Your task to perform on an android device: Search for vegetarian restaurants on Maps Image 0: 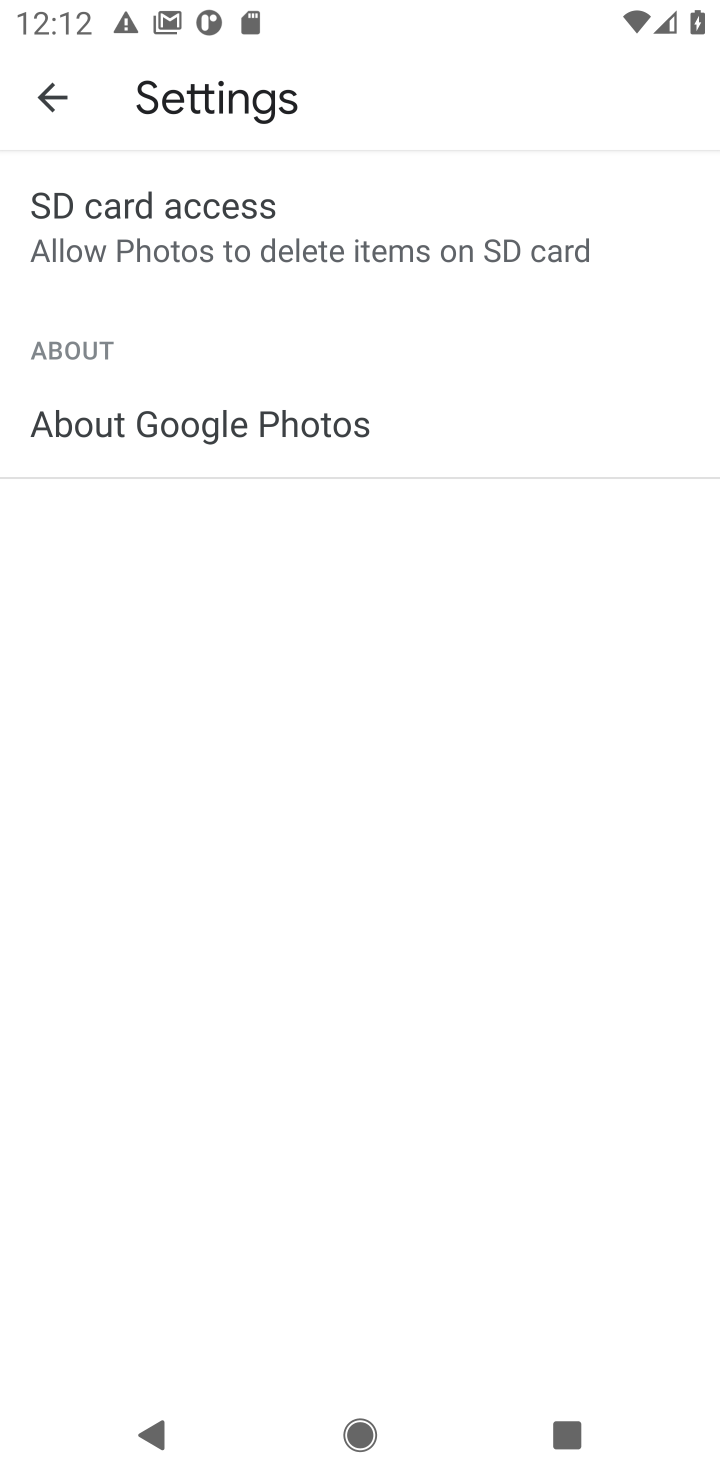
Step 0: click (49, 86)
Your task to perform on an android device: Search for vegetarian restaurants on Maps Image 1: 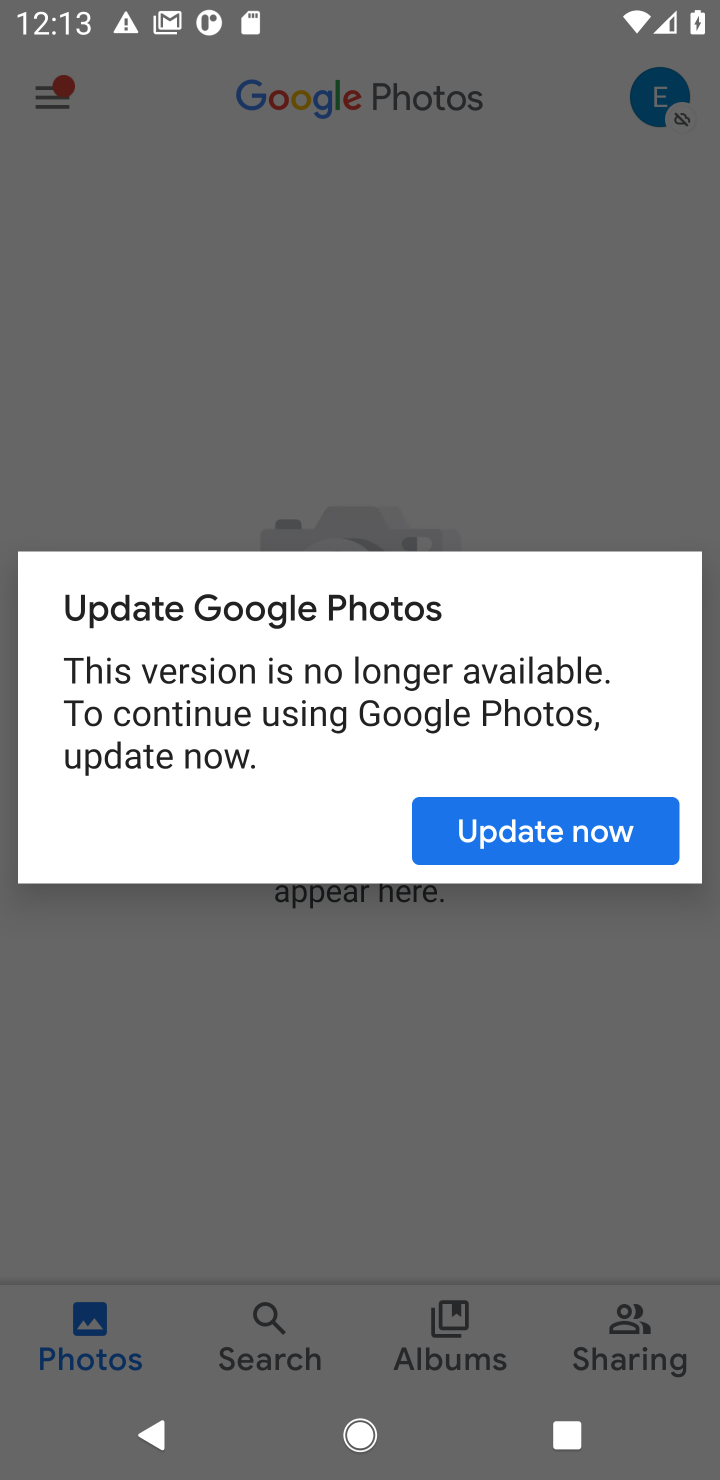
Step 1: press home button
Your task to perform on an android device: Search for vegetarian restaurants on Maps Image 2: 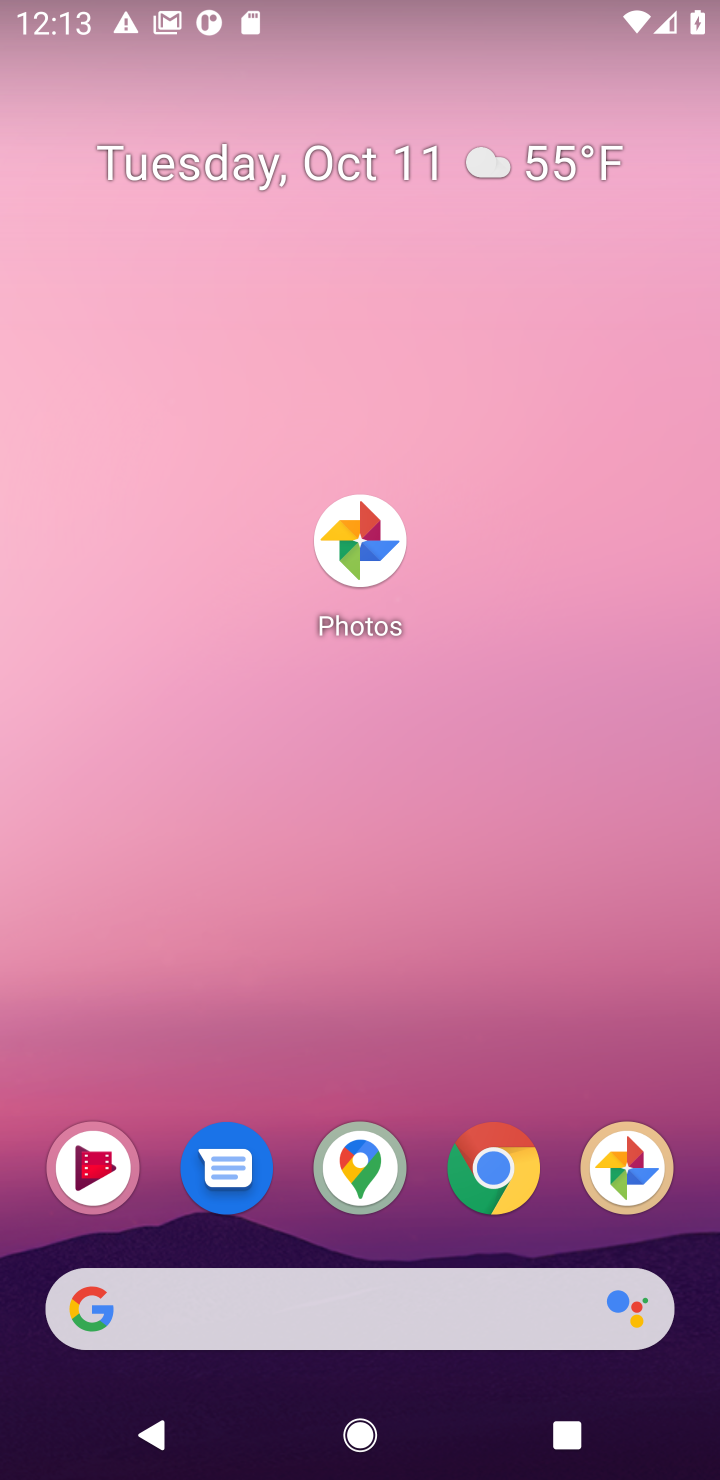
Step 2: drag from (388, 1174) to (604, 10)
Your task to perform on an android device: Search for vegetarian restaurants on Maps Image 3: 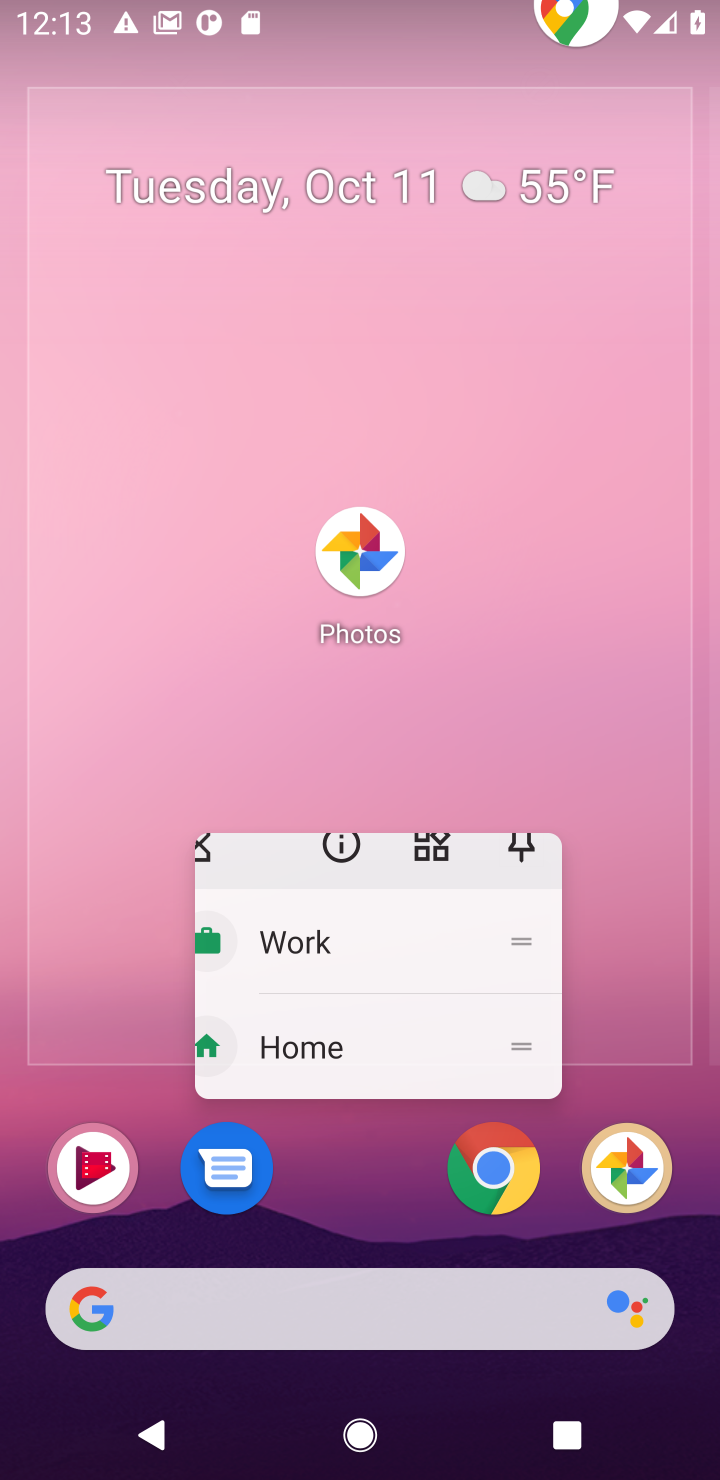
Step 3: click (613, 626)
Your task to perform on an android device: Search for vegetarian restaurants on Maps Image 4: 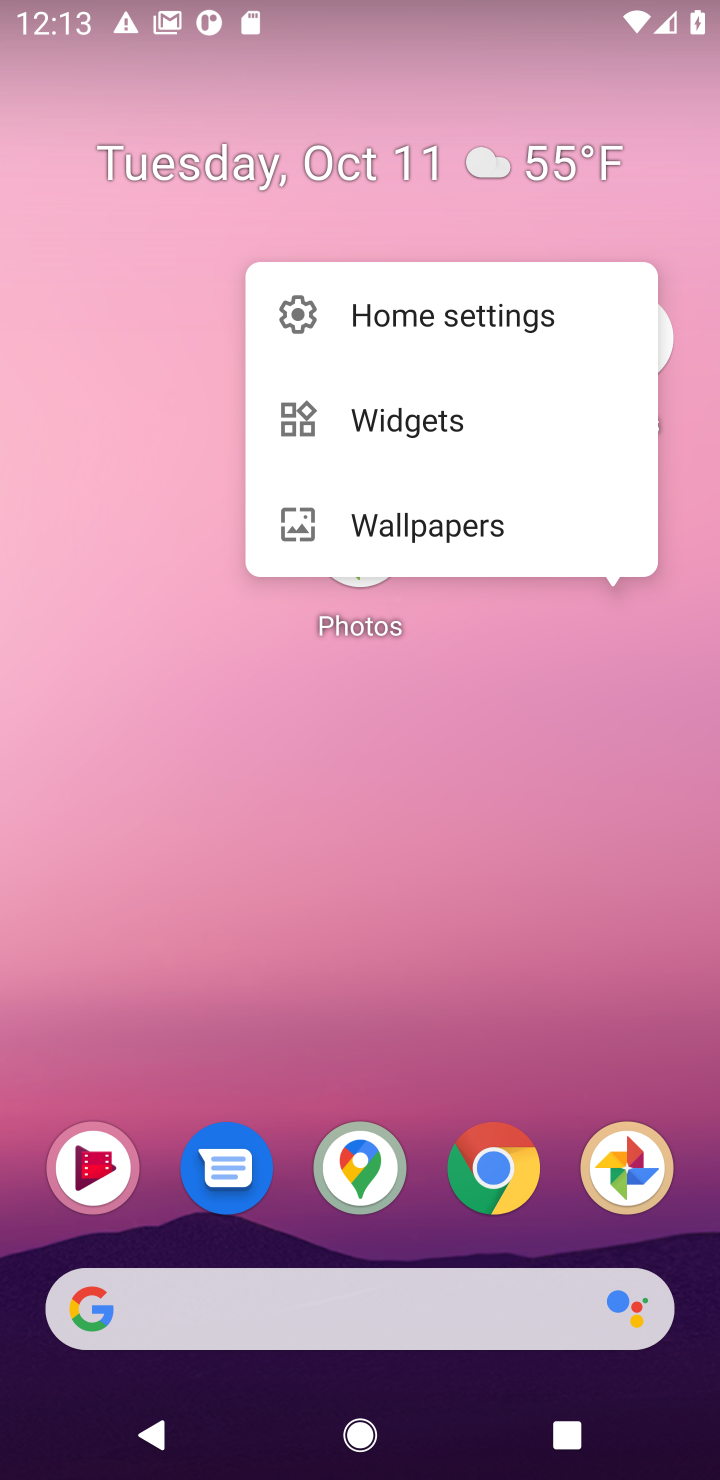
Step 4: drag from (321, 1247) to (322, 323)
Your task to perform on an android device: Search for vegetarian restaurants on Maps Image 5: 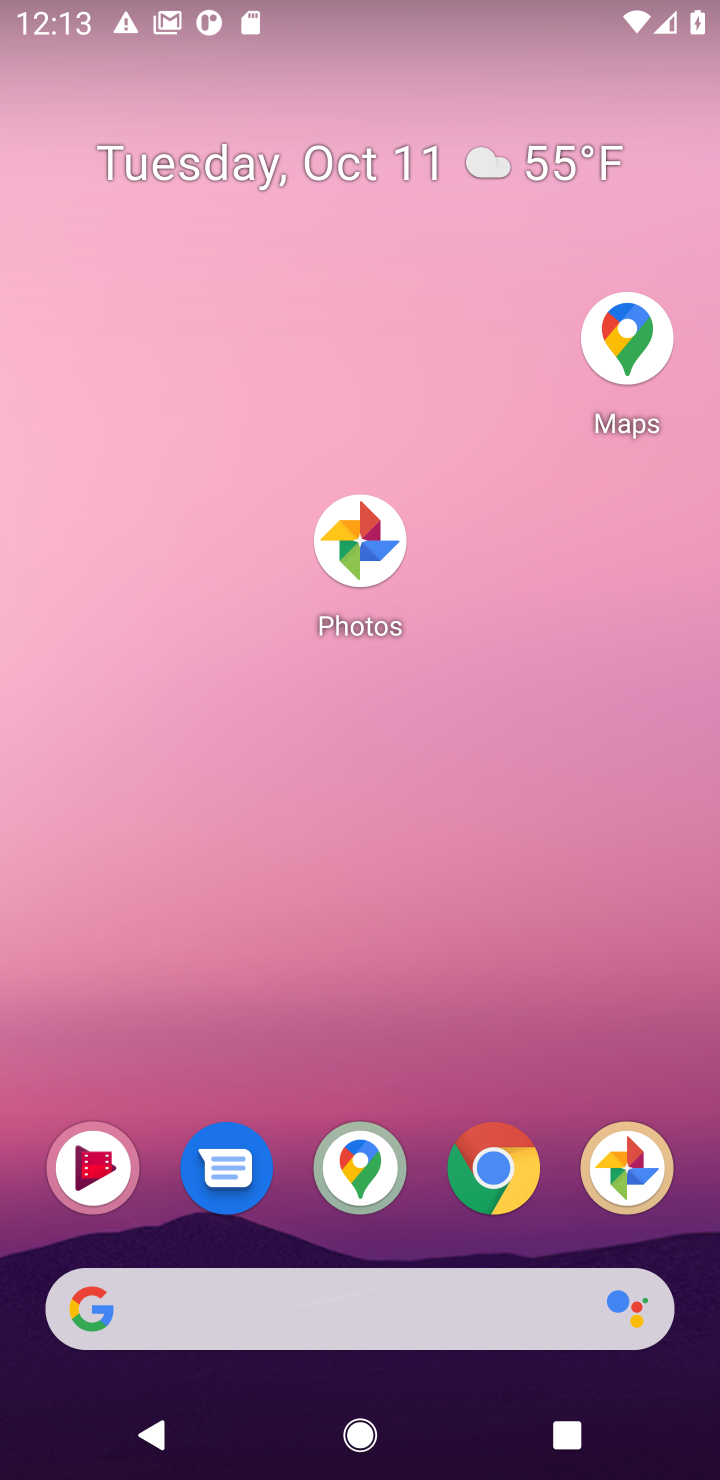
Step 5: drag from (432, 926) to (431, 347)
Your task to perform on an android device: Search for vegetarian restaurants on Maps Image 6: 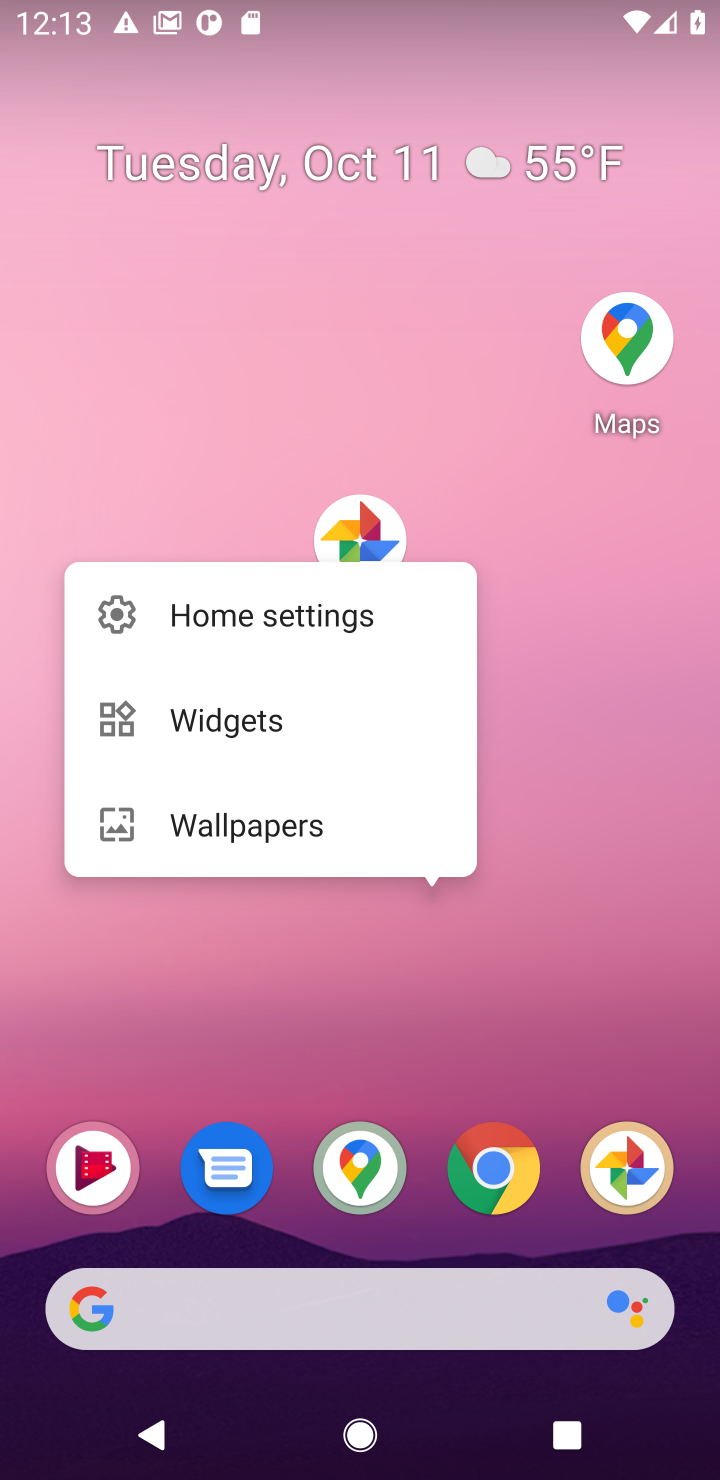
Step 6: click (645, 804)
Your task to perform on an android device: Search for vegetarian restaurants on Maps Image 7: 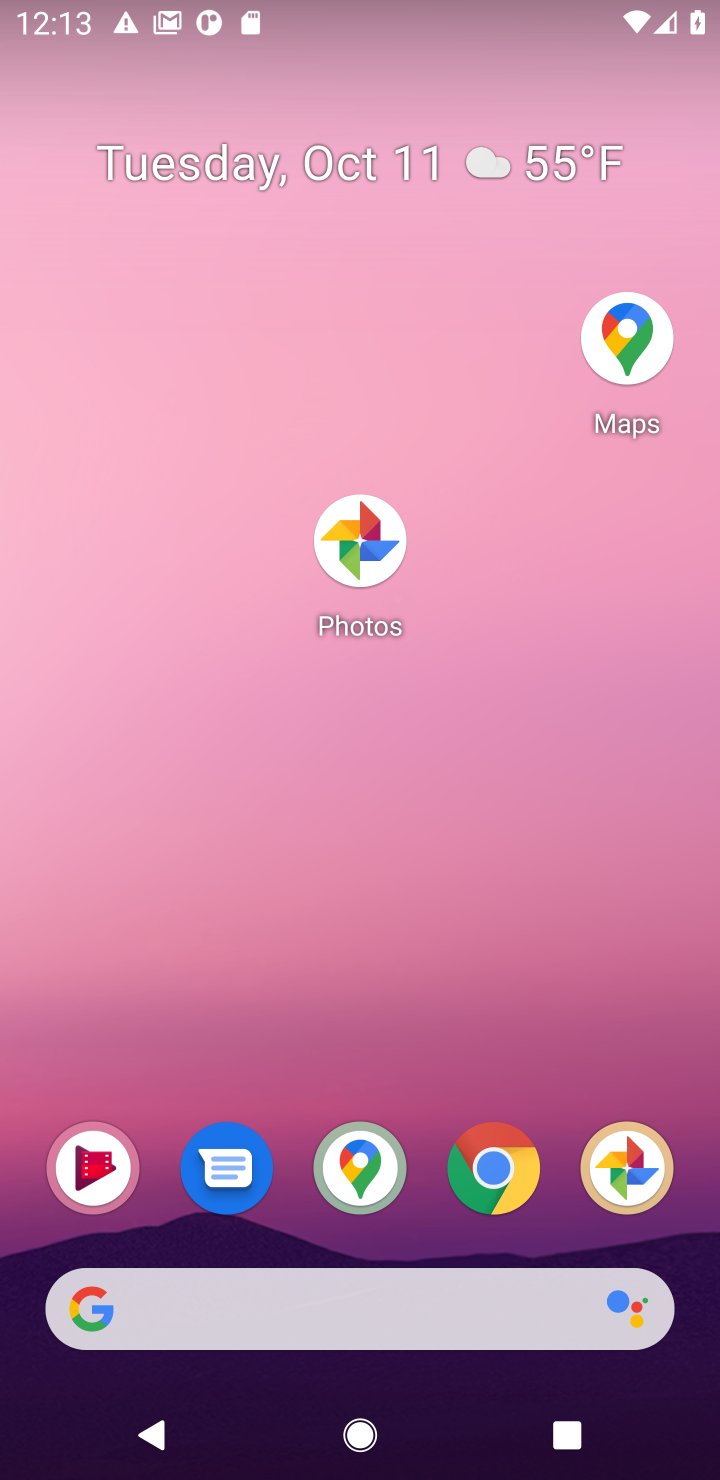
Step 7: drag from (409, 514) to (425, 2)
Your task to perform on an android device: Search for vegetarian restaurants on Maps Image 8: 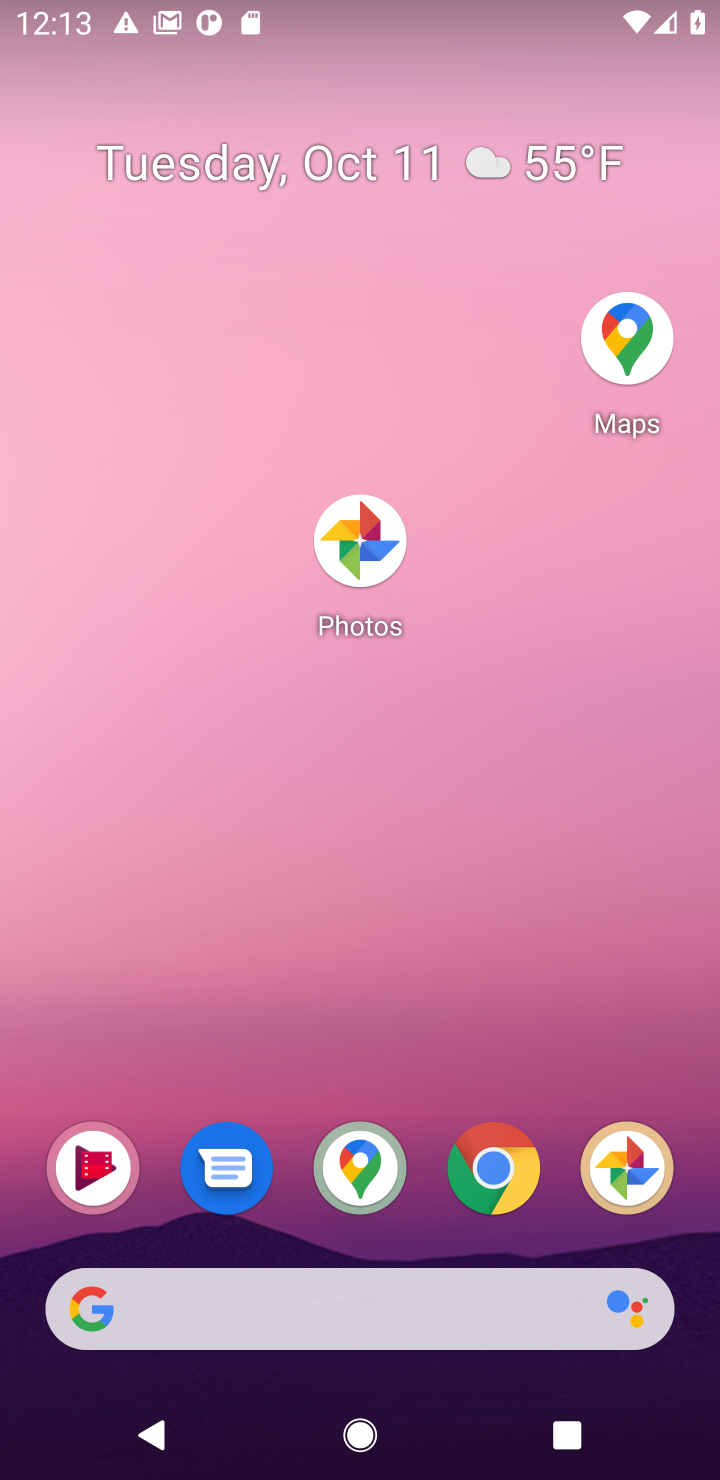
Step 8: drag from (446, 1140) to (489, 71)
Your task to perform on an android device: Search for vegetarian restaurants on Maps Image 9: 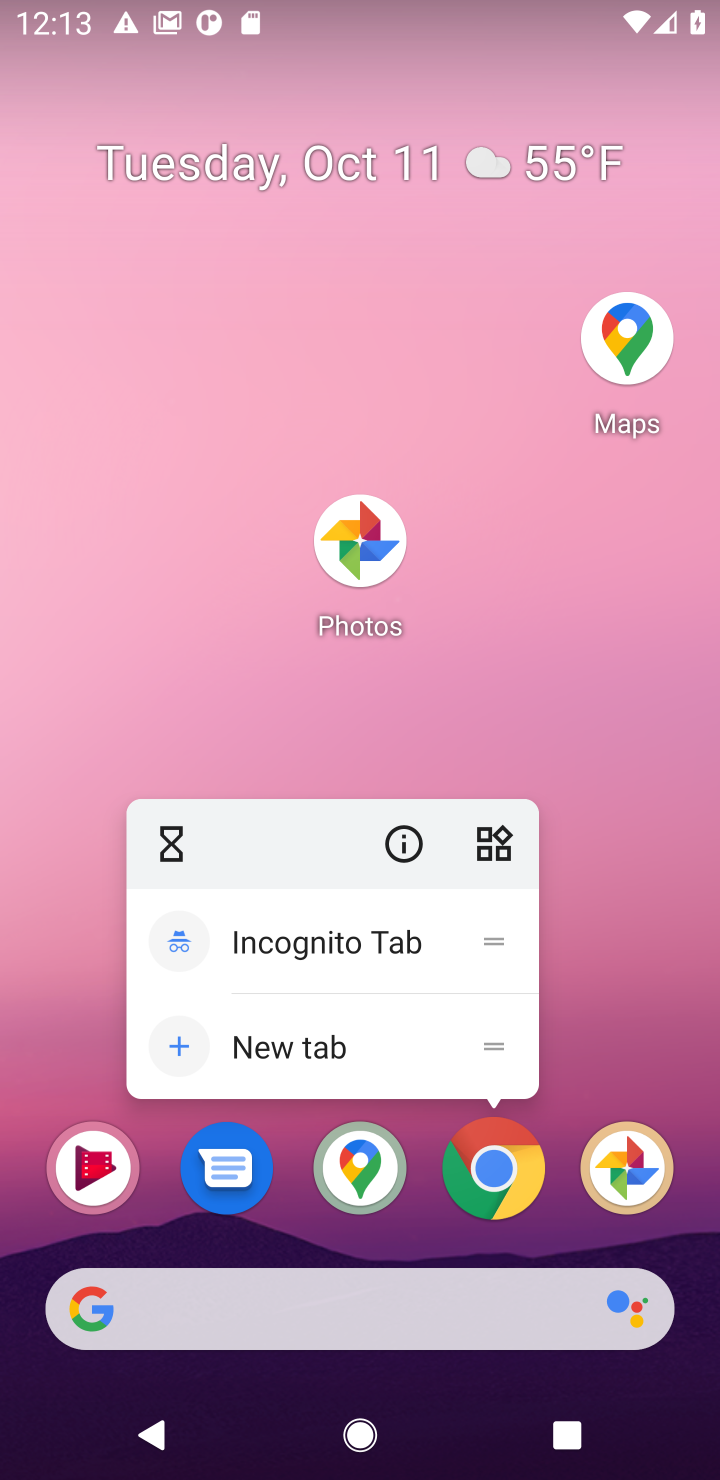
Step 9: click (506, 619)
Your task to perform on an android device: Search for vegetarian restaurants on Maps Image 10: 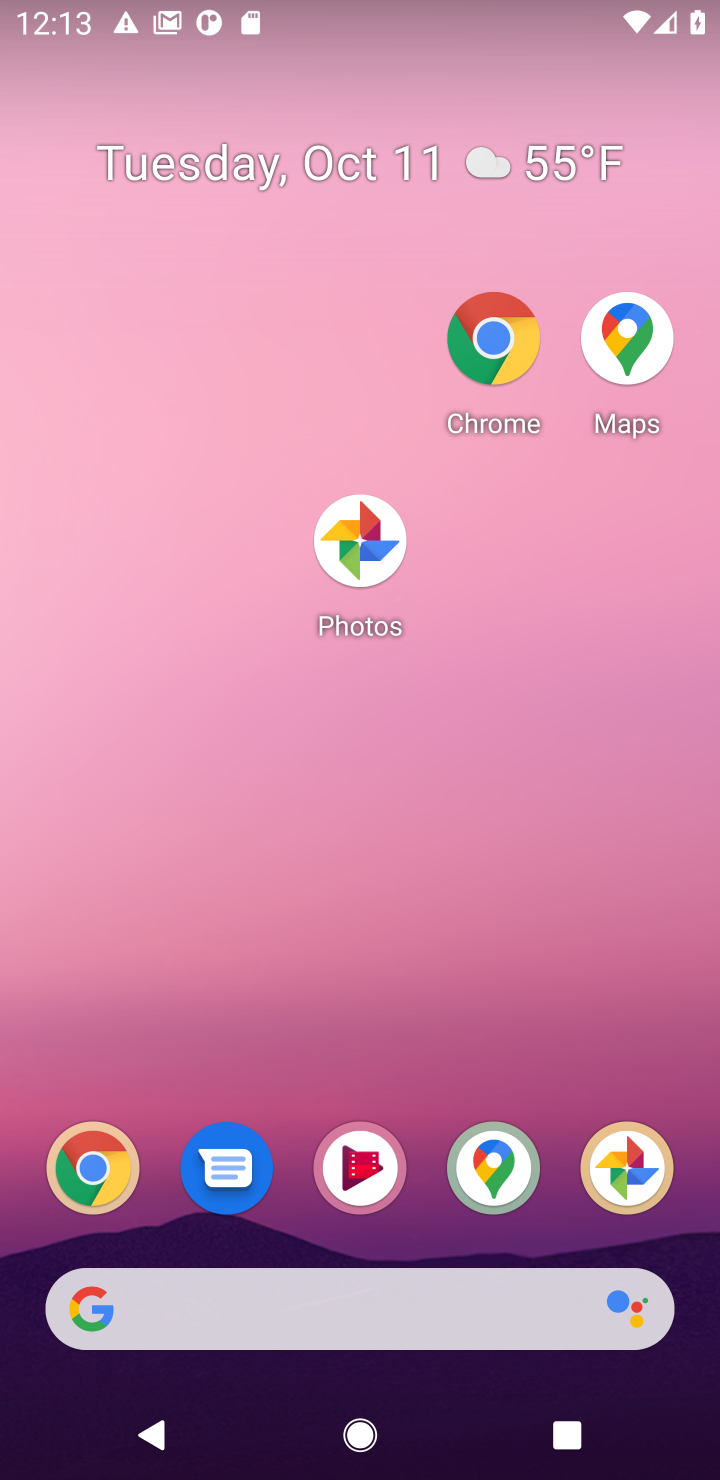
Step 10: drag from (428, 1208) to (449, 97)
Your task to perform on an android device: Search for vegetarian restaurants on Maps Image 11: 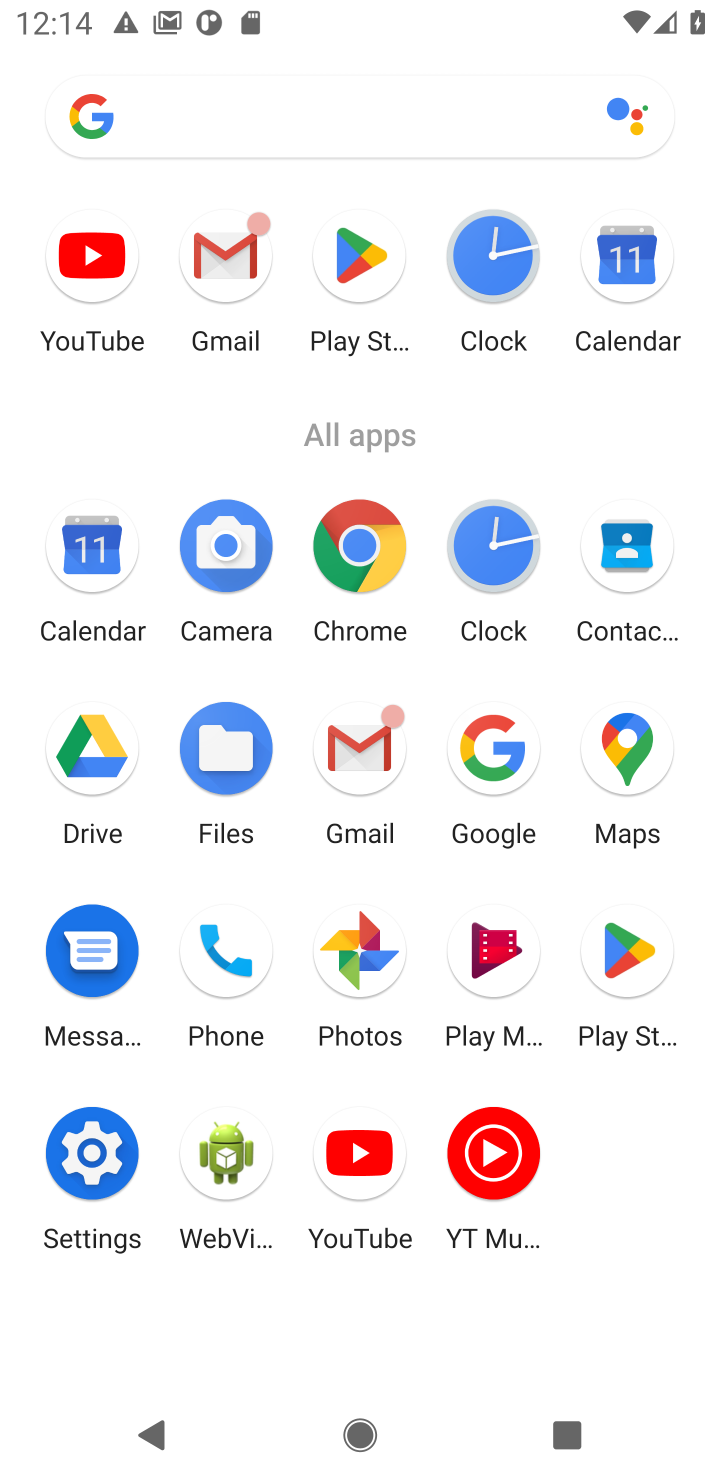
Step 11: click (640, 785)
Your task to perform on an android device: Search for vegetarian restaurants on Maps Image 12: 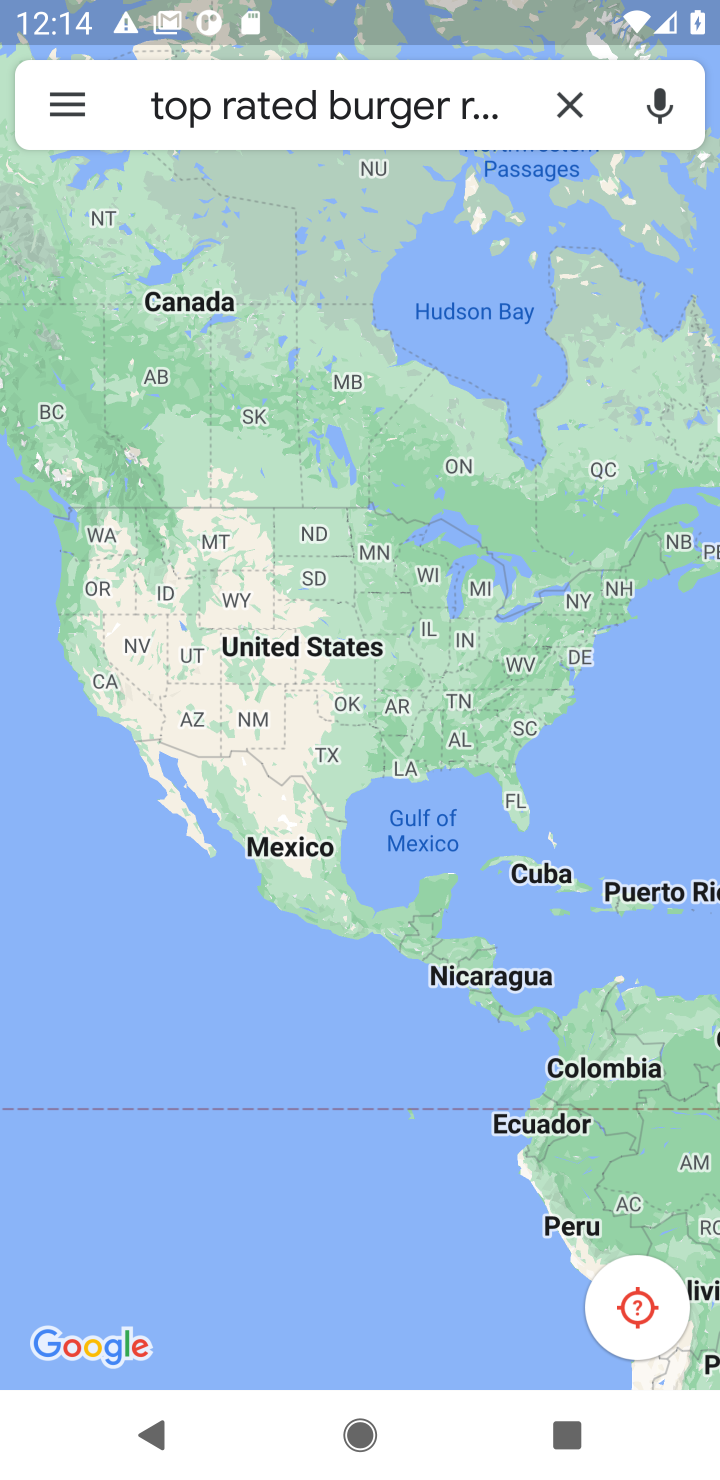
Step 12: click (555, 112)
Your task to perform on an android device: Search for vegetarian restaurants on Maps Image 13: 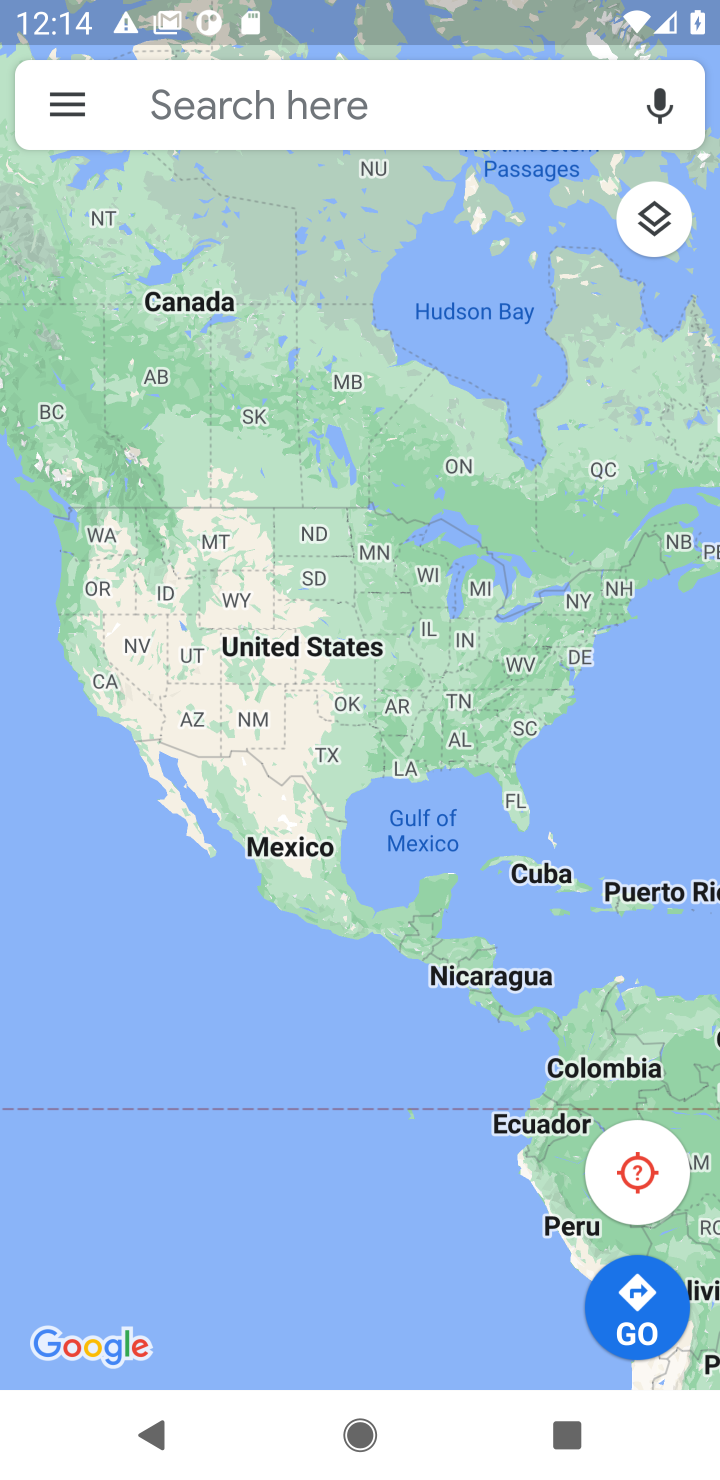
Step 13: click (486, 103)
Your task to perform on an android device: Search for vegetarian restaurants on Maps Image 14: 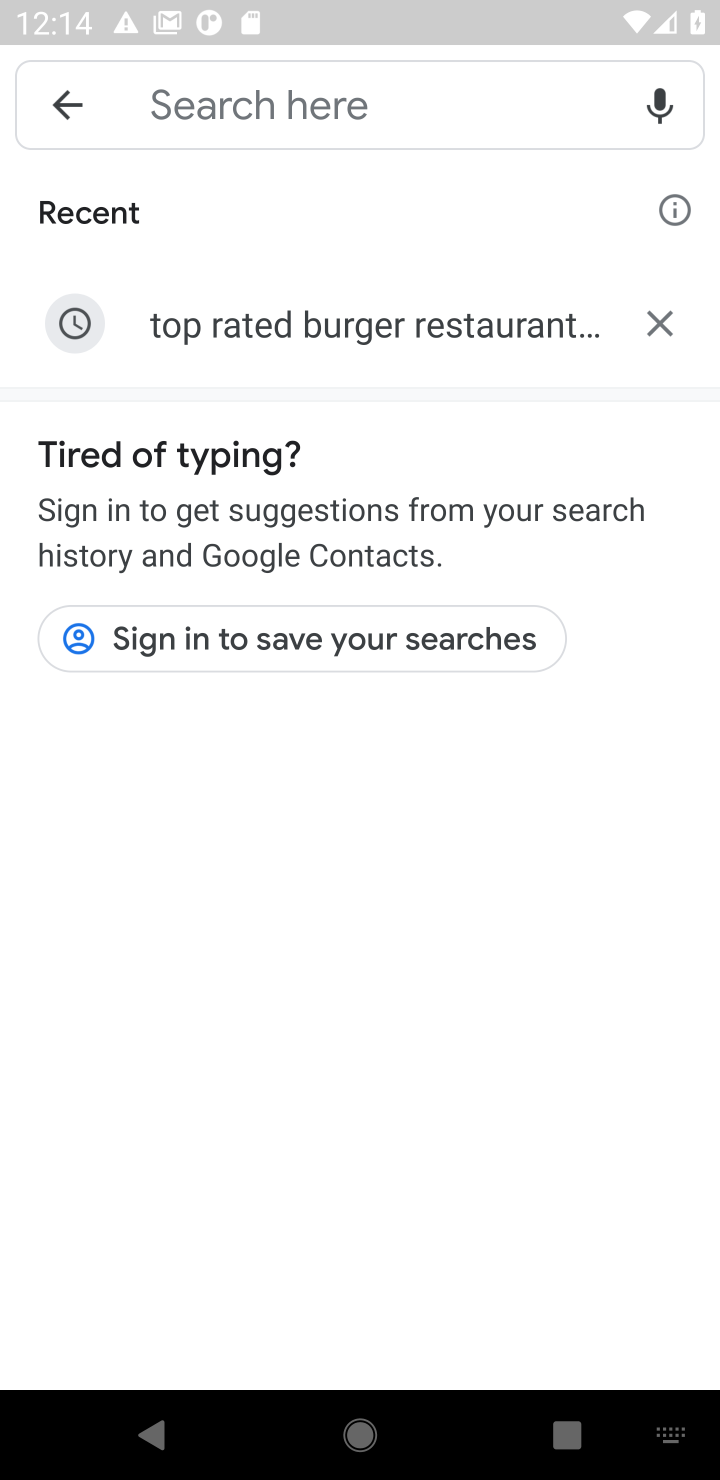
Step 14: type "vegetarian restaurants"
Your task to perform on an android device: Search for vegetarian restaurants on Maps Image 15: 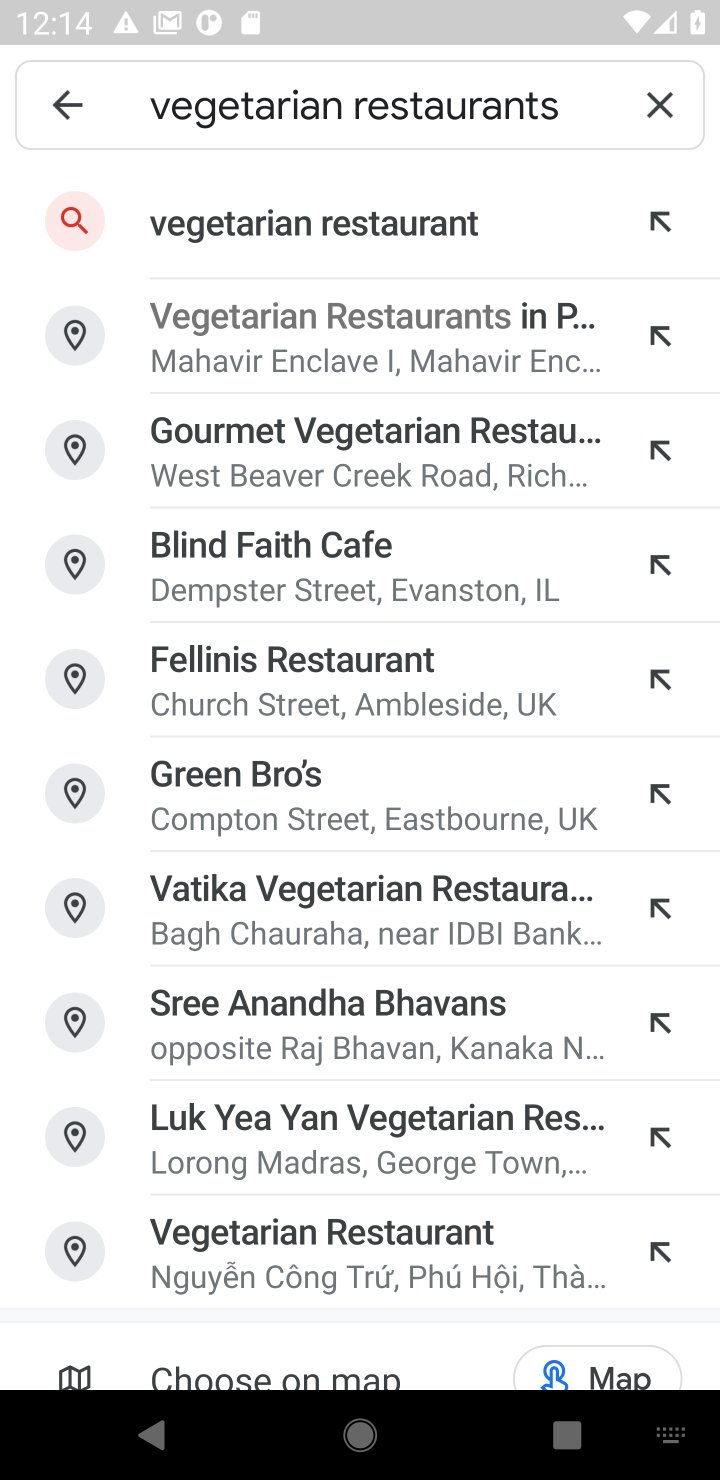
Step 15: click (402, 243)
Your task to perform on an android device: Search for vegetarian restaurants on Maps Image 16: 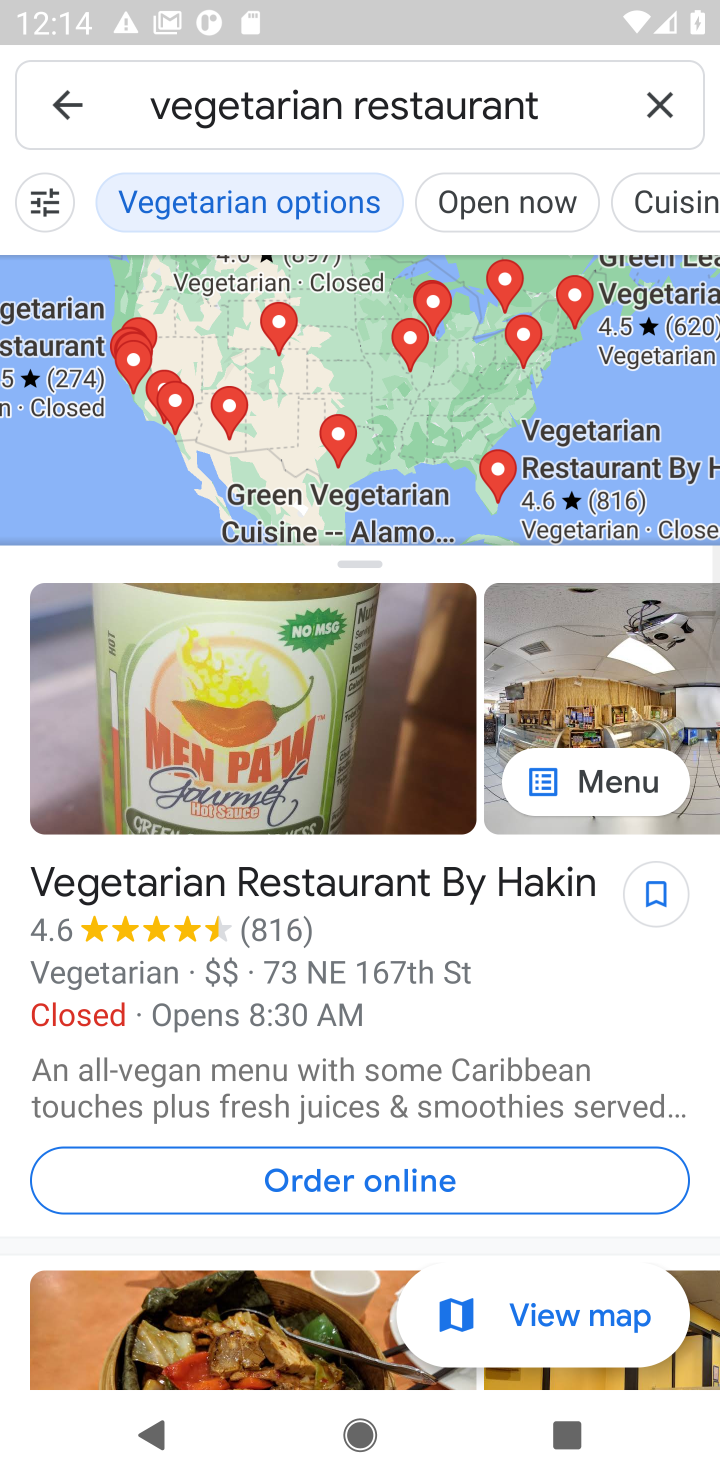
Step 16: task complete